Your task to perform on an android device: turn on bluetooth scan Image 0: 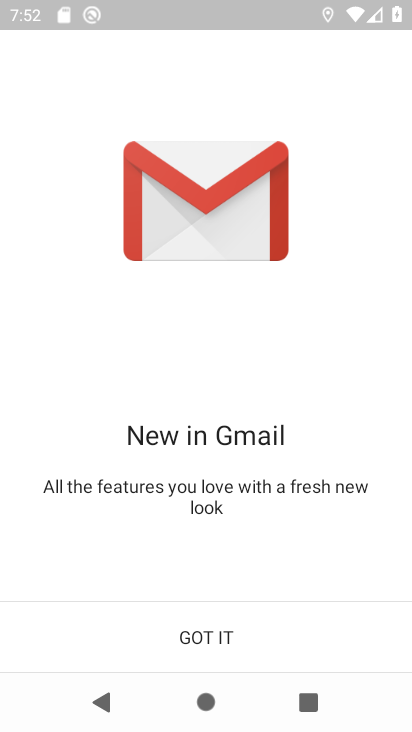
Step 0: press home button
Your task to perform on an android device: turn on bluetooth scan Image 1: 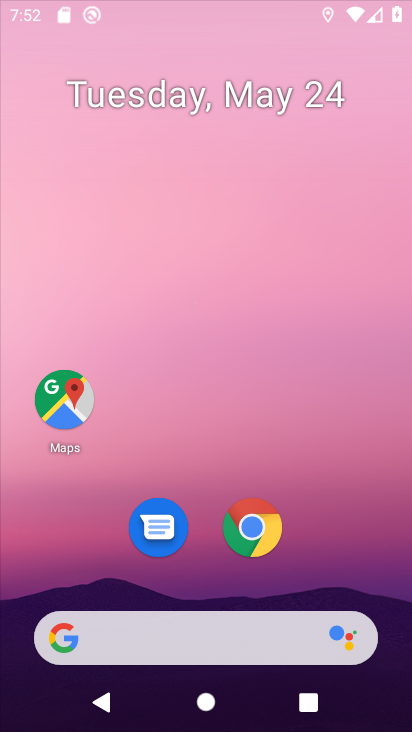
Step 1: drag from (342, 421) to (344, 229)
Your task to perform on an android device: turn on bluetooth scan Image 2: 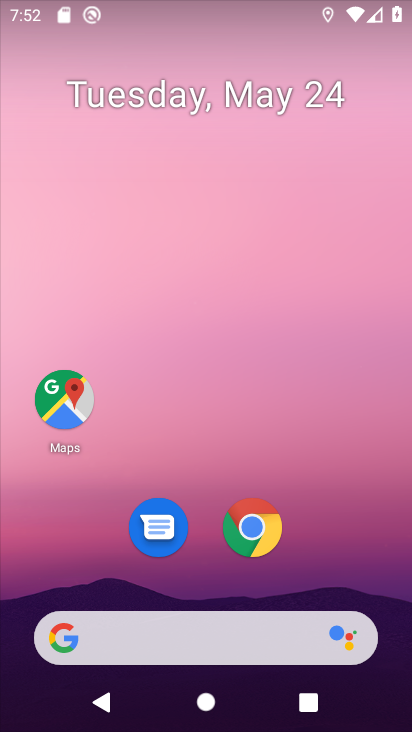
Step 2: drag from (353, 541) to (305, 178)
Your task to perform on an android device: turn on bluetooth scan Image 3: 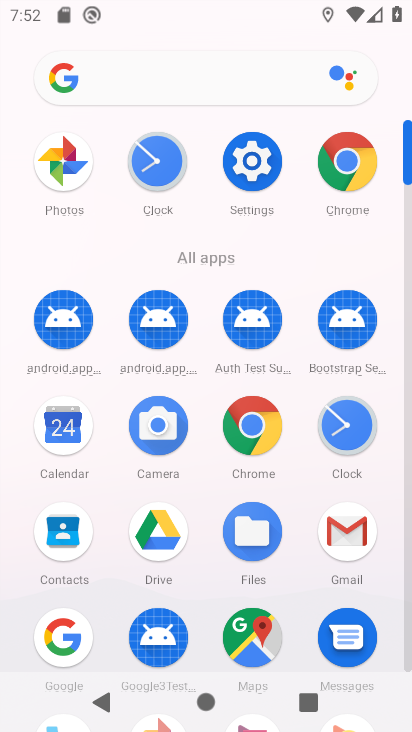
Step 3: click (265, 158)
Your task to perform on an android device: turn on bluetooth scan Image 4: 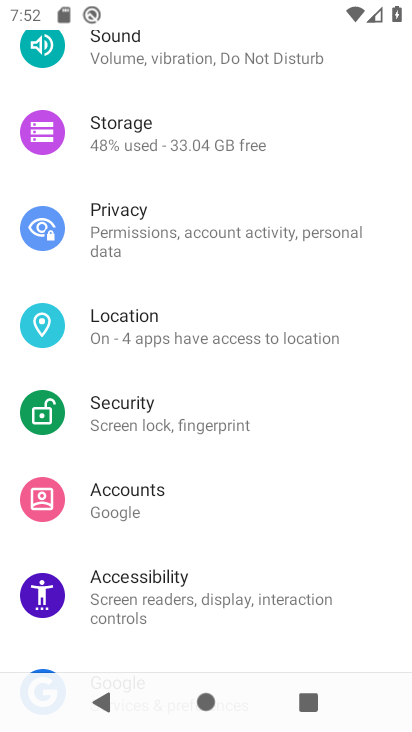
Step 4: drag from (193, 554) to (201, 475)
Your task to perform on an android device: turn on bluetooth scan Image 5: 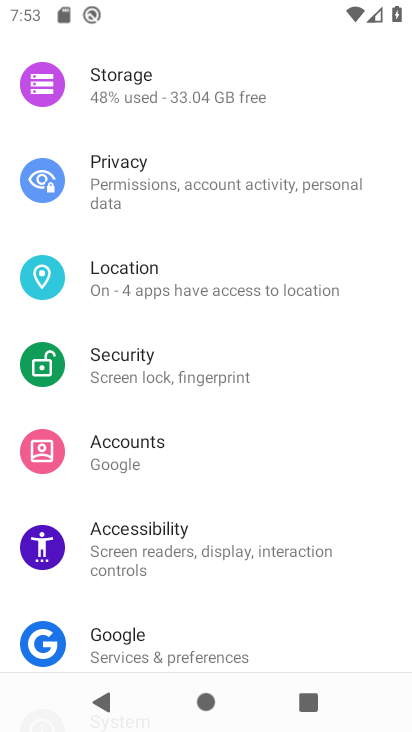
Step 5: click (178, 292)
Your task to perform on an android device: turn on bluetooth scan Image 6: 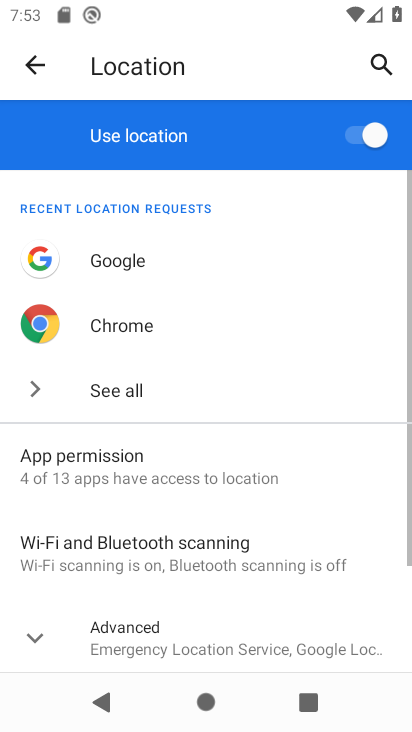
Step 6: click (168, 645)
Your task to perform on an android device: turn on bluetooth scan Image 7: 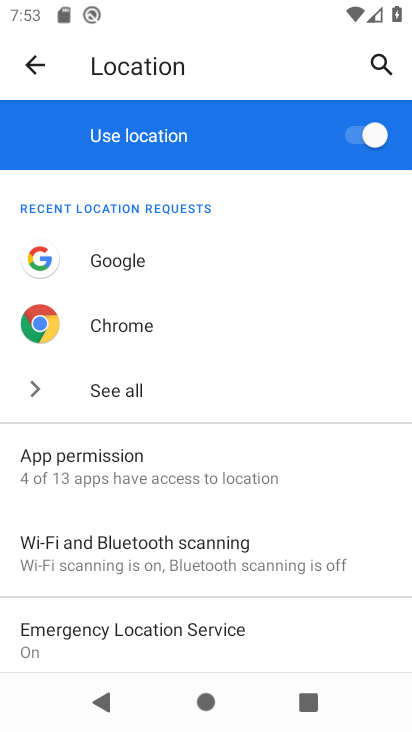
Step 7: click (143, 551)
Your task to perform on an android device: turn on bluetooth scan Image 8: 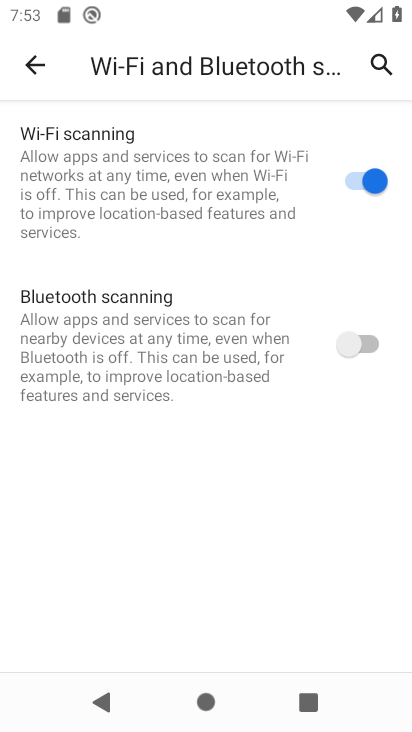
Step 8: click (367, 337)
Your task to perform on an android device: turn on bluetooth scan Image 9: 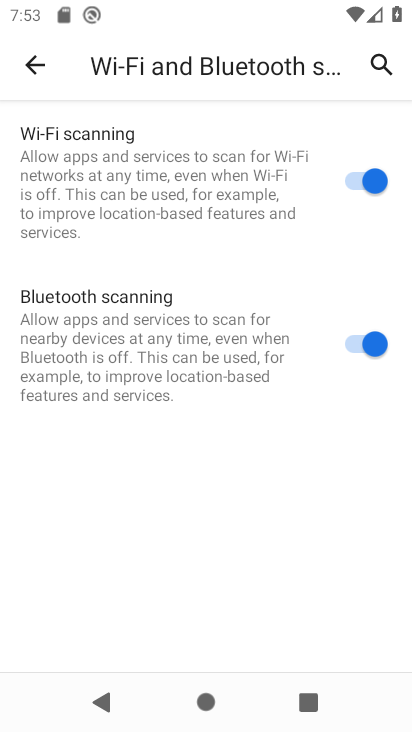
Step 9: task complete